Your task to perform on an android device: Go to display settings Image 0: 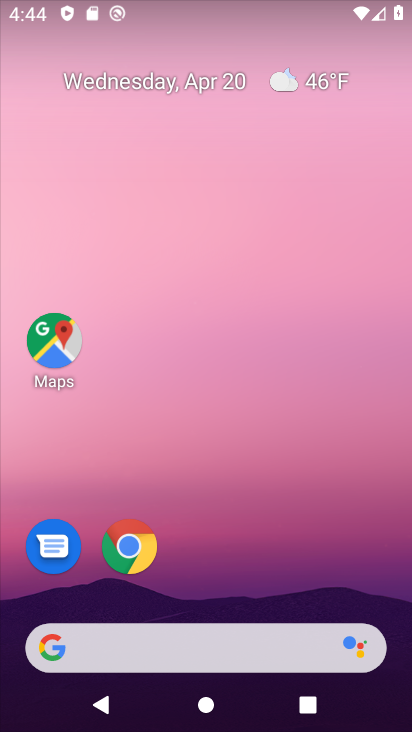
Step 0: drag from (292, 469) to (304, 98)
Your task to perform on an android device: Go to display settings Image 1: 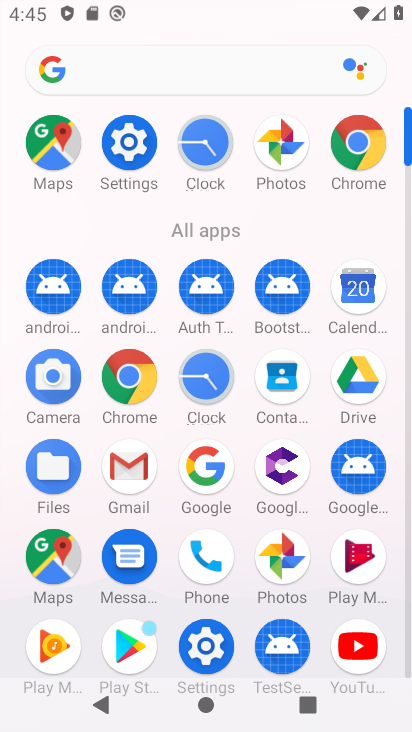
Step 1: click (121, 147)
Your task to perform on an android device: Go to display settings Image 2: 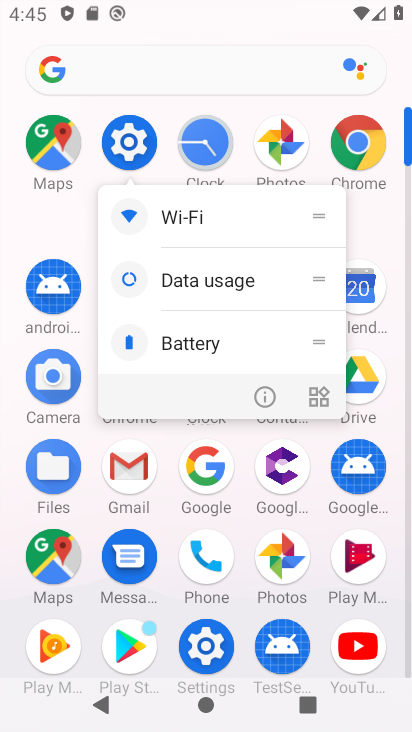
Step 2: click (121, 146)
Your task to perform on an android device: Go to display settings Image 3: 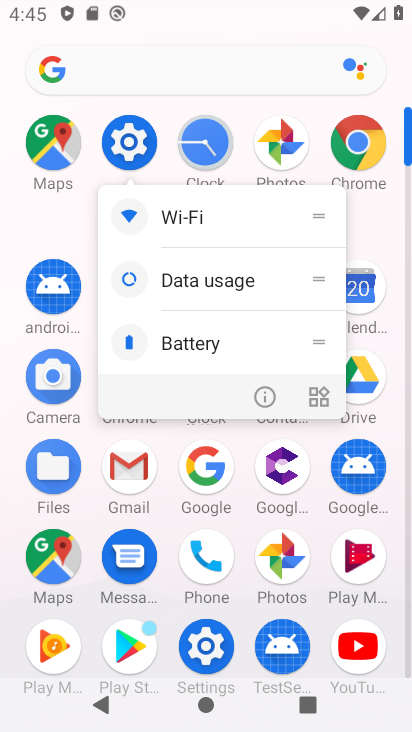
Step 3: click (121, 145)
Your task to perform on an android device: Go to display settings Image 4: 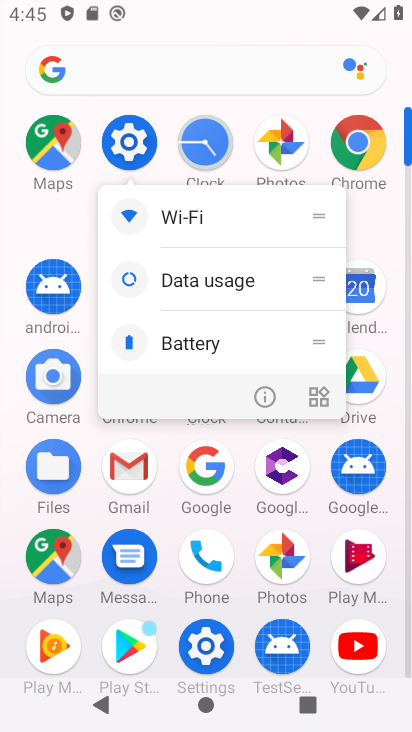
Step 4: click (121, 145)
Your task to perform on an android device: Go to display settings Image 5: 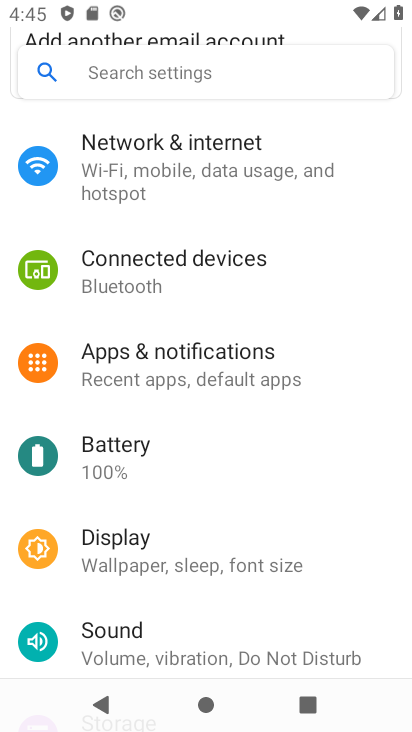
Step 5: drag from (137, 583) to (199, 249)
Your task to perform on an android device: Go to display settings Image 6: 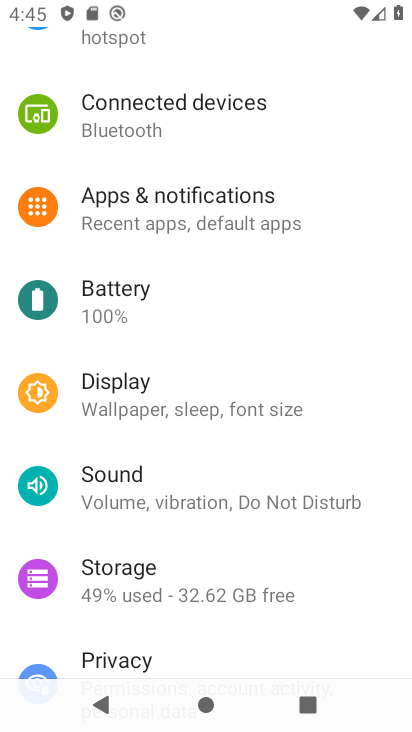
Step 6: drag from (179, 610) to (176, 213)
Your task to perform on an android device: Go to display settings Image 7: 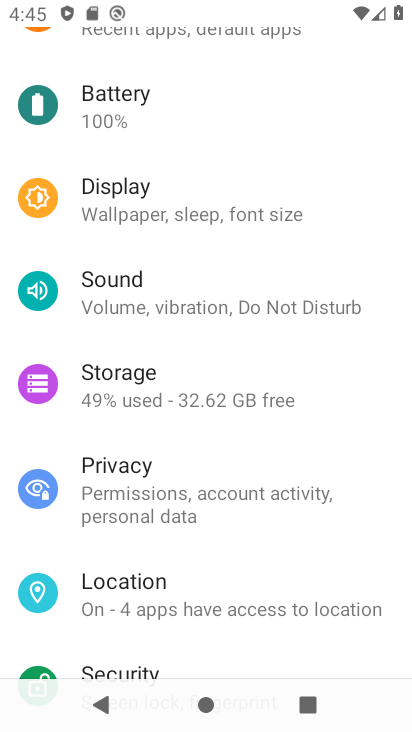
Step 7: click (161, 198)
Your task to perform on an android device: Go to display settings Image 8: 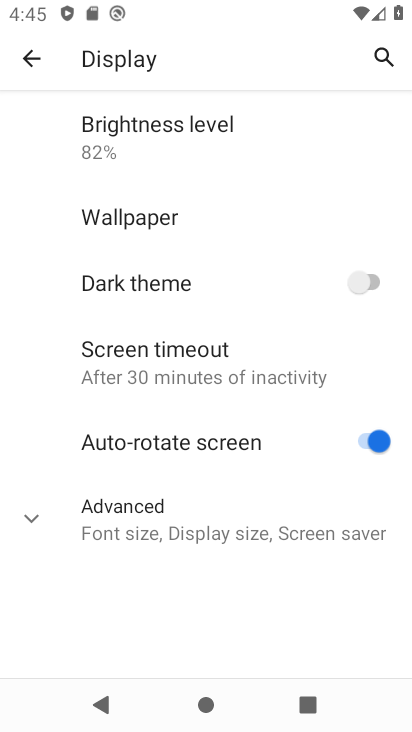
Step 8: task complete